Your task to perform on an android device: toggle priority inbox in the gmail app Image 0: 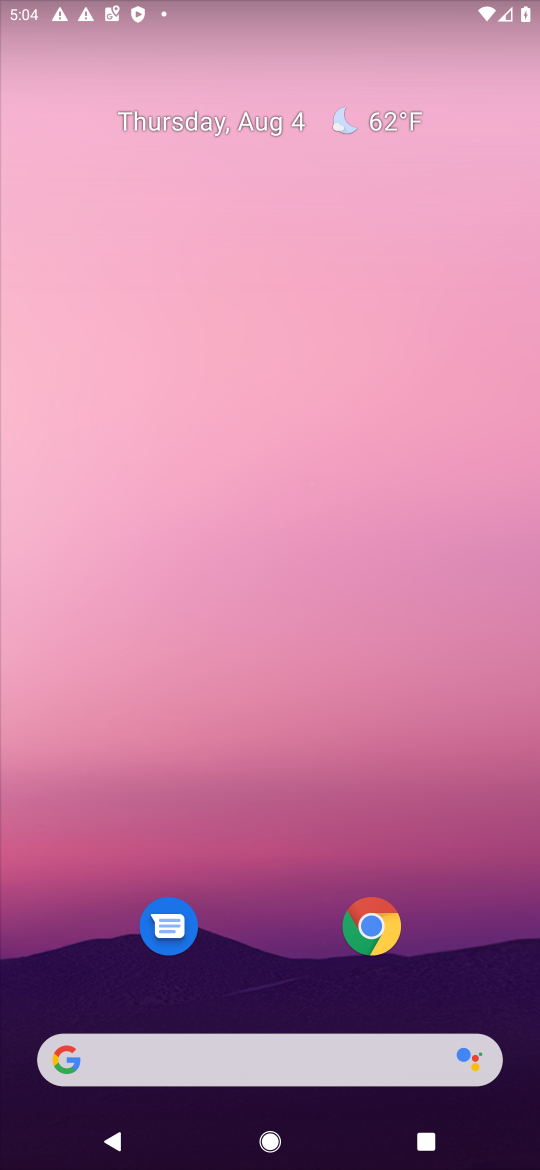
Step 0: drag from (281, 931) to (336, 410)
Your task to perform on an android device: toggle priority inbox in the gmail app Image 1: 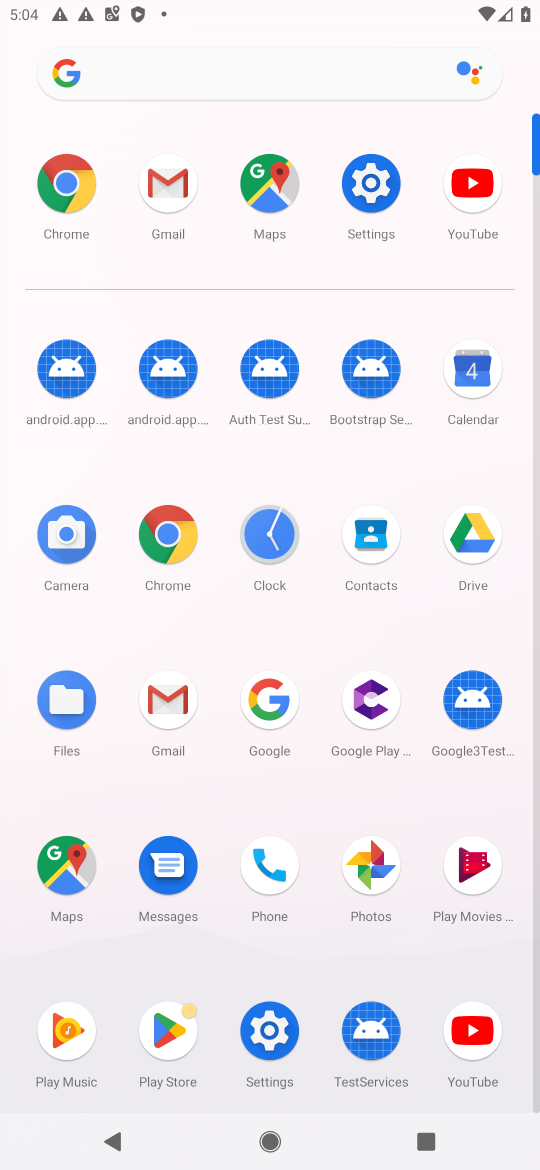
Step 1: click (161, 186)
Your task to perform on an android device: toggle priority inbox in the gmail app Image 2: 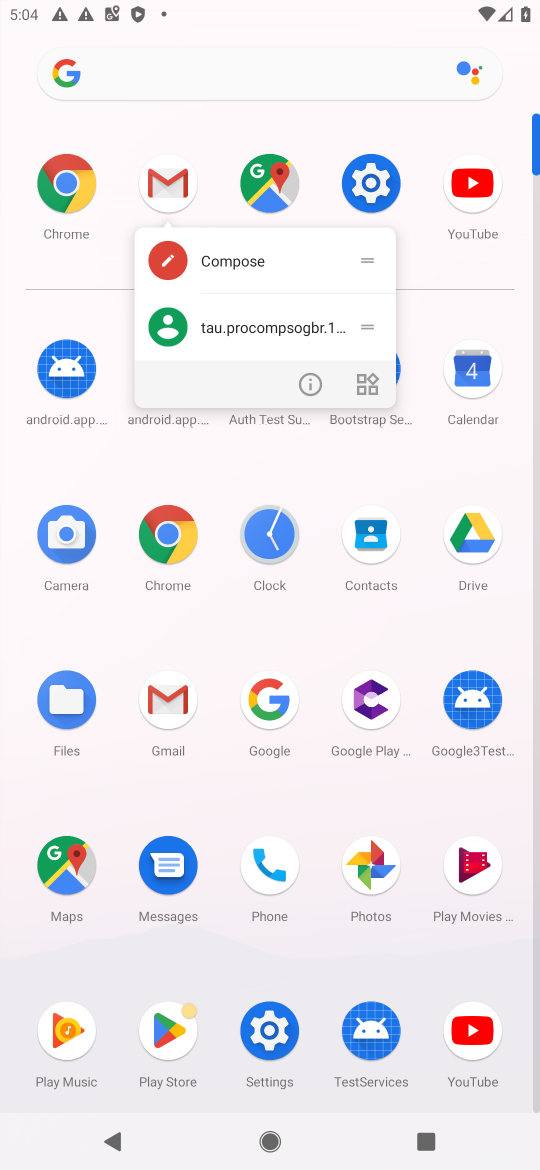
Step 2: click (164, 173)
Your task to perform on an android device: toggle priority inbox in the gmail app Image 3: 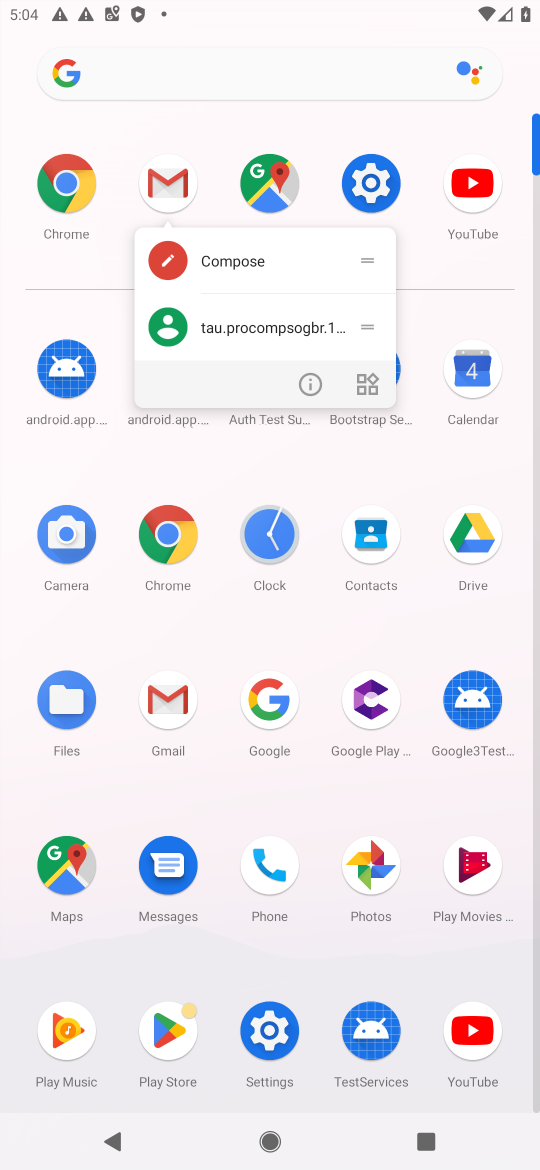
Step 3: click (164, 173)
Your task to perform on an android device: toggle priority inbox in the gmail app Image 4: 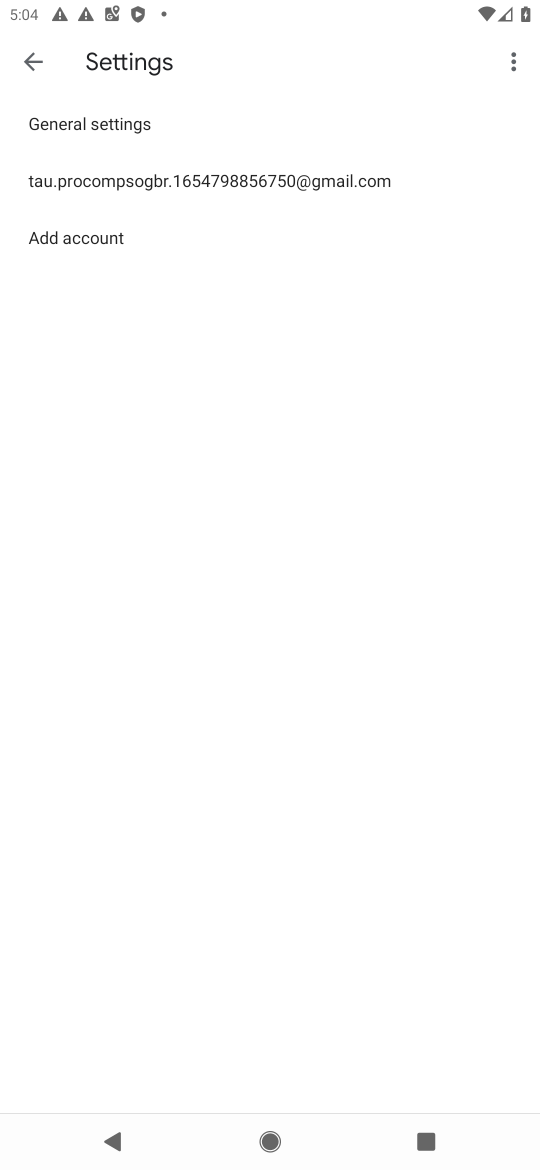
Step 4: click (197, 182)
Your task to perform on an android device: toggle priority inbox in the gmail app Image 5: 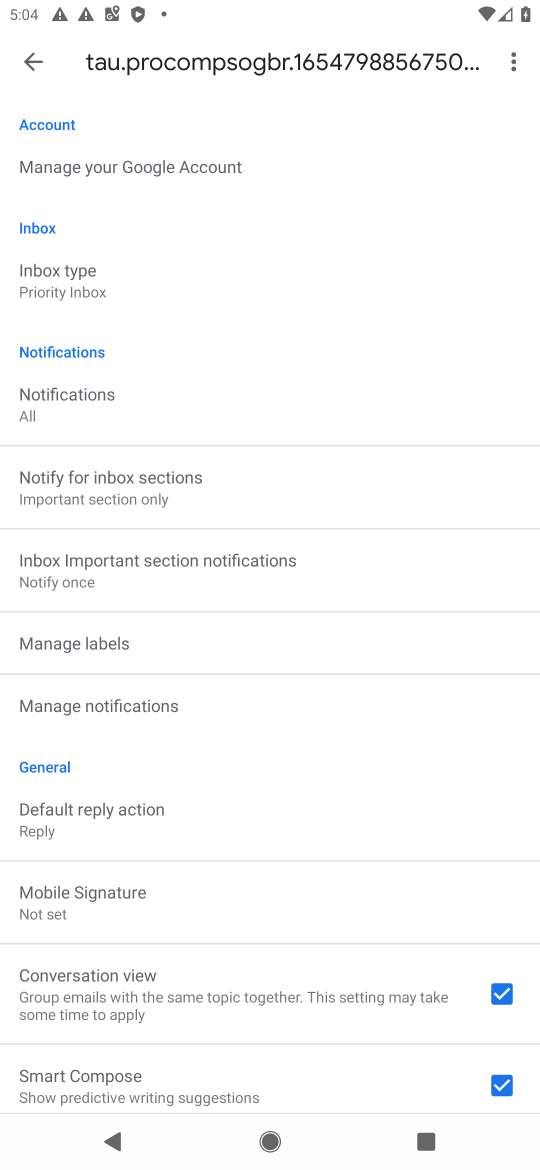
Step 5: click (66, 289)
Your task to perform on an android device: toggle priority inbox in the gmail app Image 6: 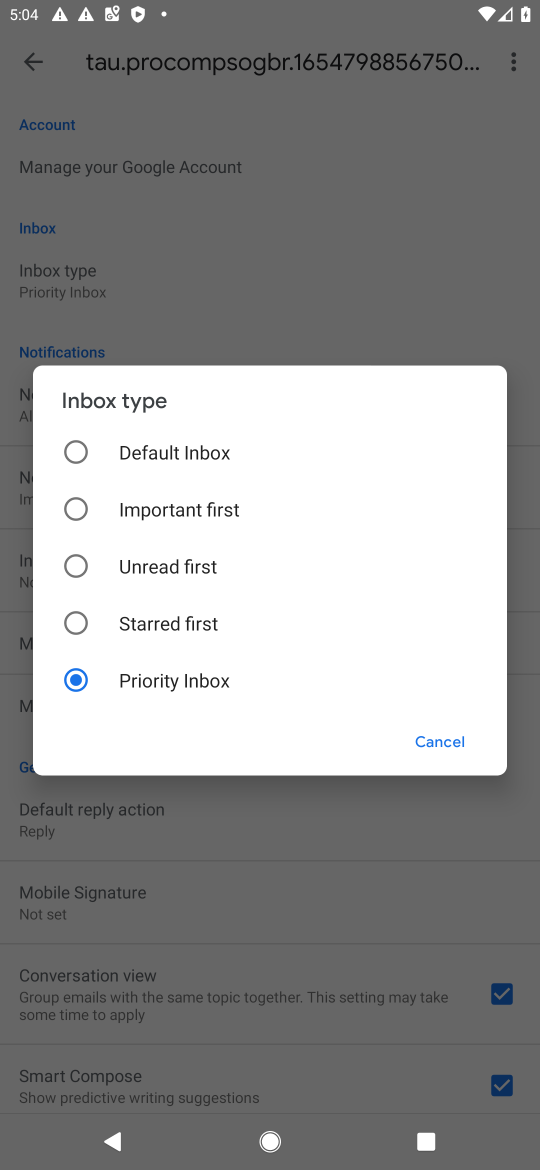
Step 6: click (66, 448)
Your task to perform on an android device: toggle priority inbox in the gmail app Image 7: 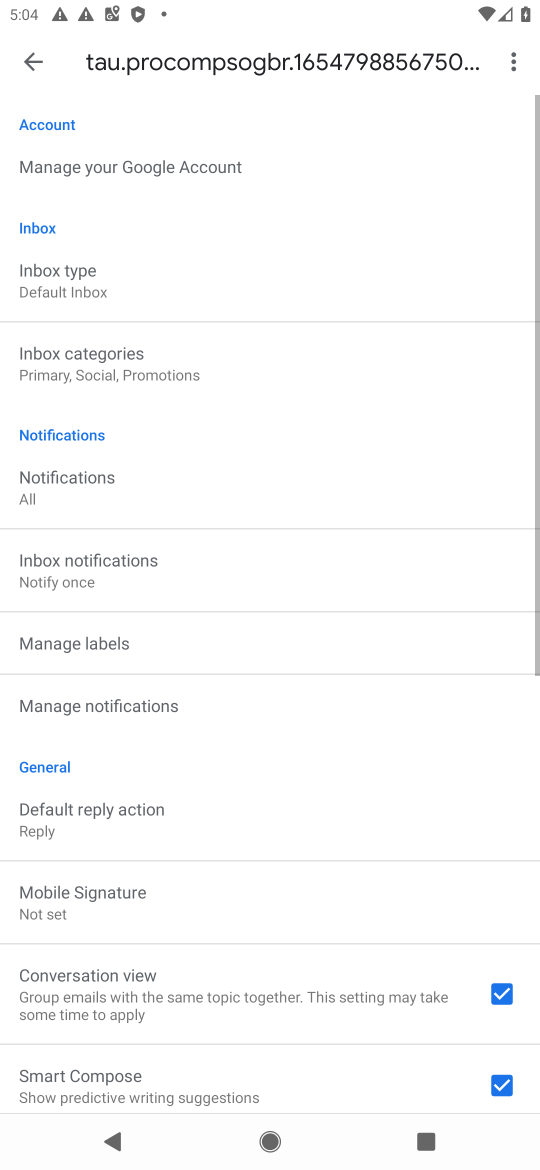
Step 7: task complete